Your task to perform on an android device: clear history in the chrome app Image 0: 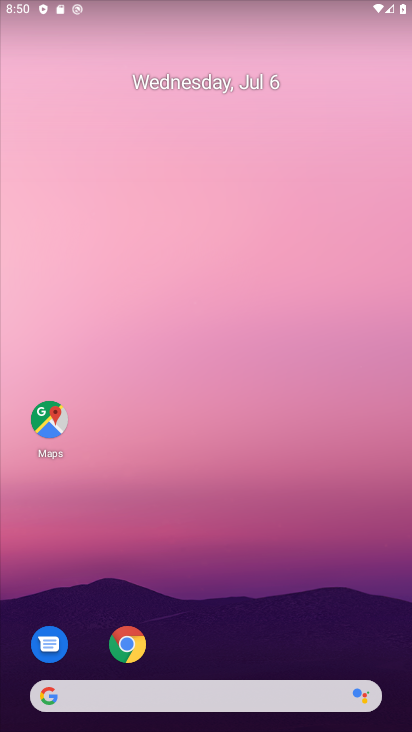
Step 0: drag from (276, 631) to (315, 19)
Your task to perform on an android device: clear history in the chrome app Image 1: 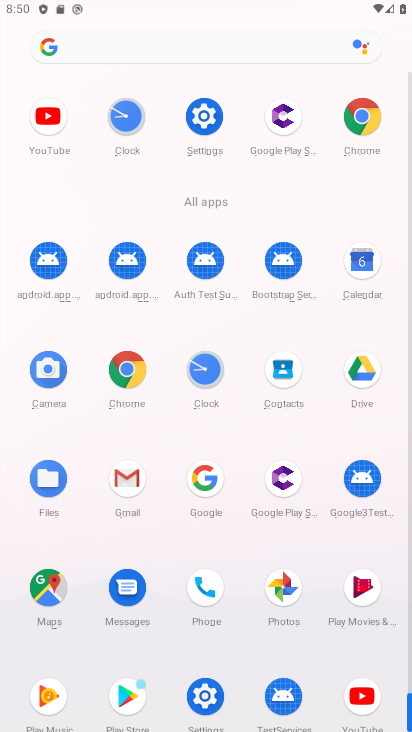
Step 1: click (363, 129)
Your task to perform on an android device: clear history in the chrome app Image 2: 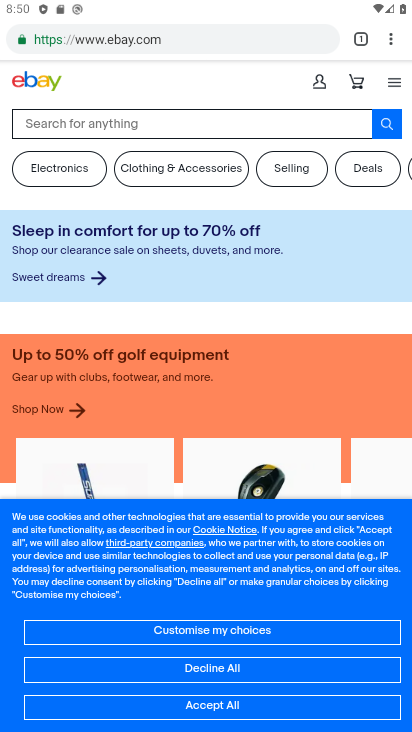
Step 2: click (396, 34)
Your task to perform on an android device: clear history in the chrome app Image 3: 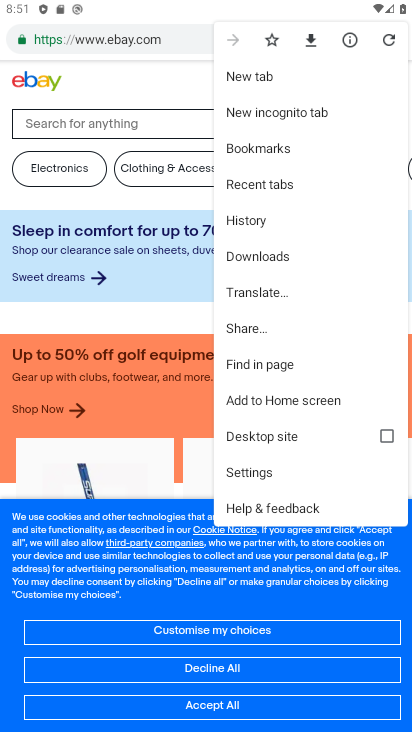
Step 3: click (269, 218)
Your task to perform on an android device: clear history in the chrome app Image 4: 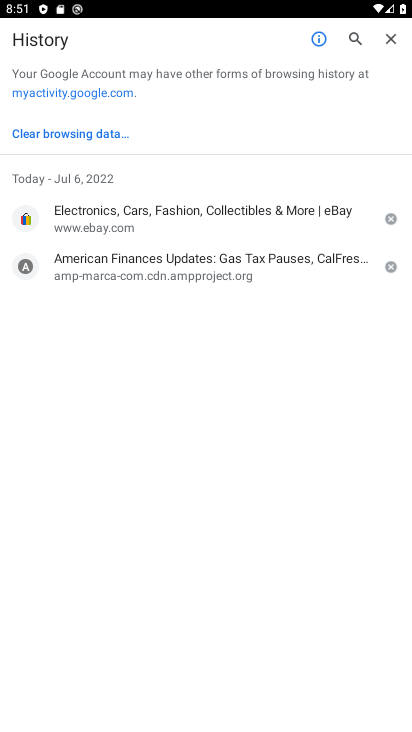
Step 4: click (71, 130)
Your task to perform on an android device: clear history in the chrome app Image 5: 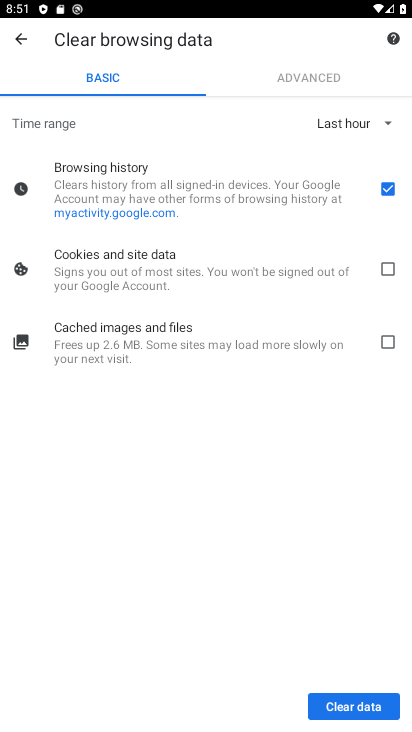
Step 5: click (343, 705)
Your task to perform on an android device: clear history in the chrome app Image 6: 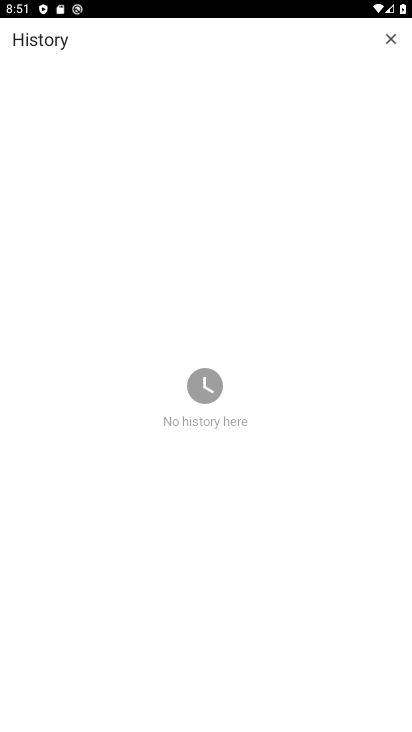
Step 6: task complete